Your task to perform on an android device: turn on location history Image 0: 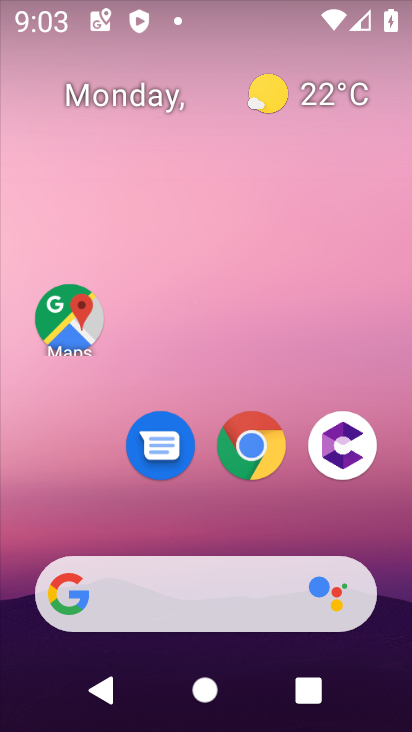
Step 0: drag from (197, 330) to (178, 6)
Your task to perform on an android device: turn on location history Image 1: 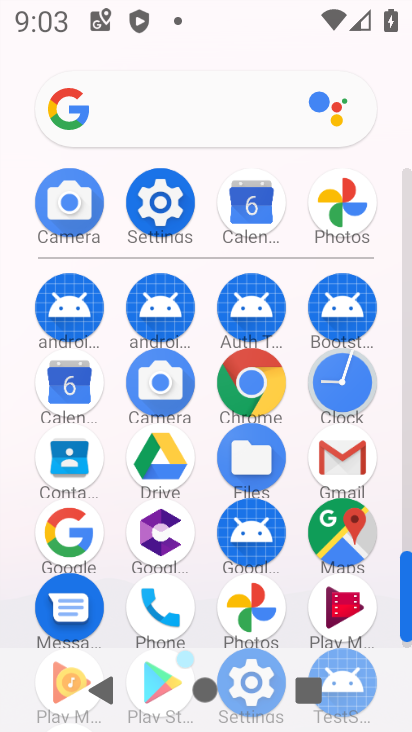
Step 1: click (148, 206)
Your task to perform on an android device: turn on location history Image 2: 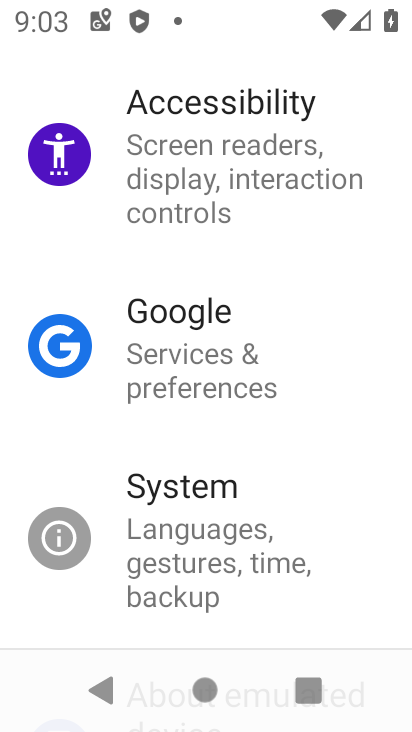
Step 2: drag from (71, 244) to (101, 262)
Your task to perform on an android device: turn on location history Image 3: 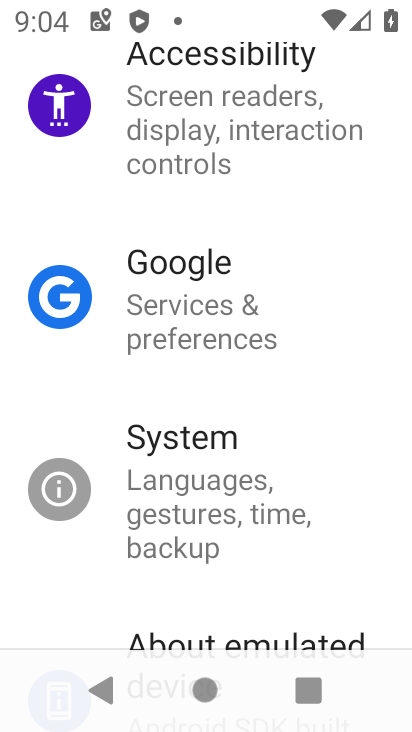
Step 3: drag from (55, 414) to (43, 706)
Your task to perform on an android device: turn on location history Image 4: 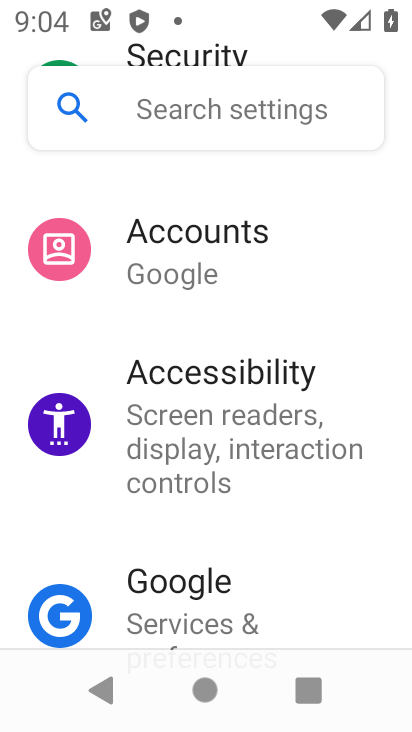
Step 4: drag from (42, 332) to (20, 692)
Your task to perform on an android device: turn on location history Image 5: 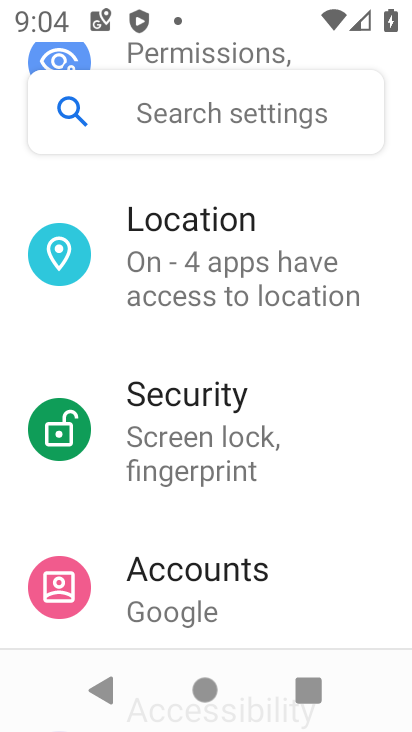
Step 5: click (145, 264)
Your task to perform on an android device: turn on location history Image 6: 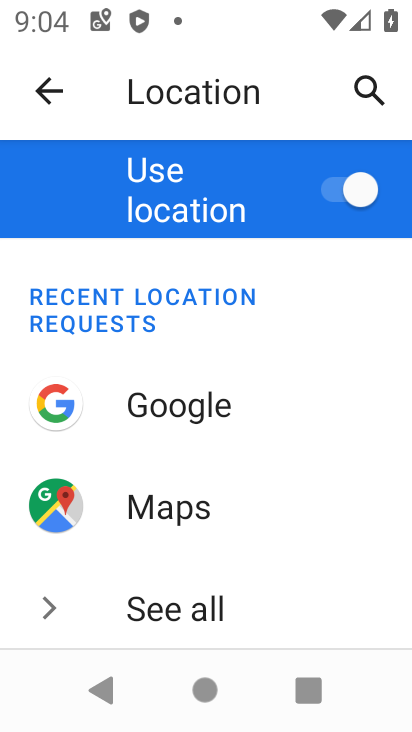
Step 6: drag from (305, 623) to (295, 235)
Your task to perform on an android device: turn on location history Image 7: 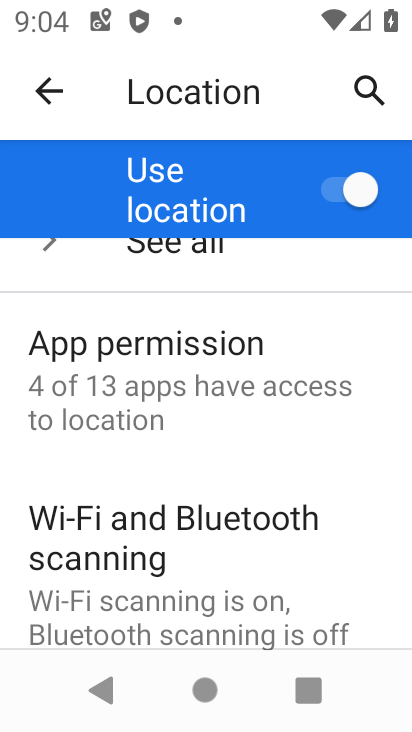
Step 7: drag from (281, 565) to (278, 212)
Your task to perform on an android device: turn on location history Image 8: 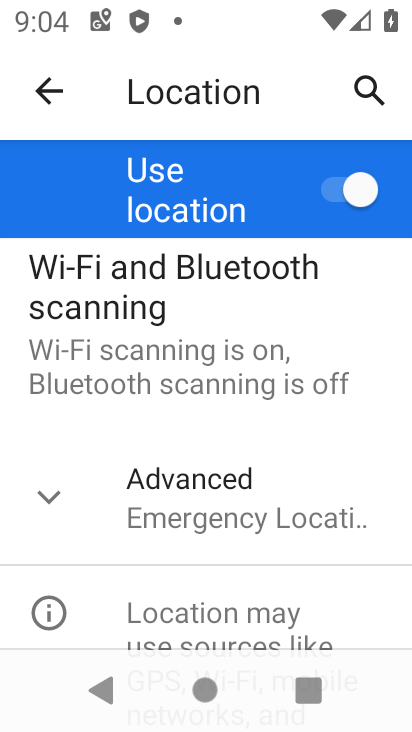
Step 8: click (83, 514)
Your task to perform on an android device: turn on location history Image 9: 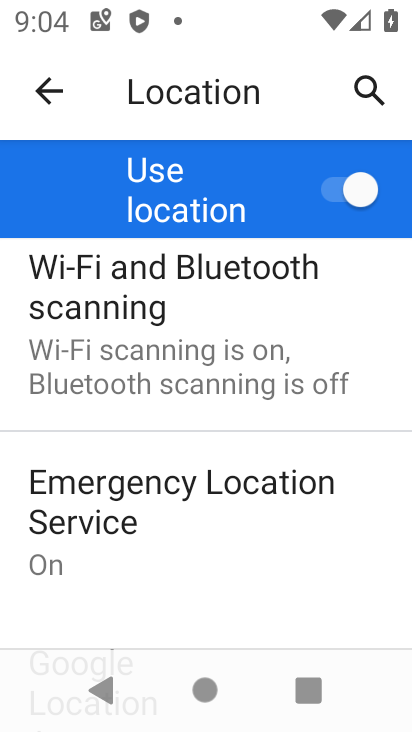
Step 9: drag from (296, 560) to (282, 213)
Your task to perform on an android device: turn on location history Image 10: 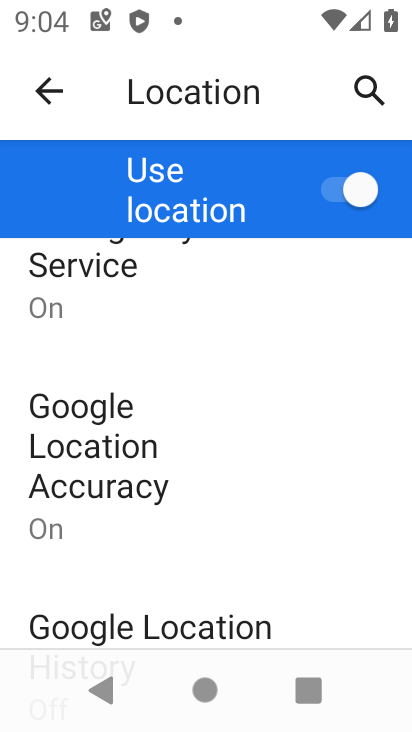
Step 10: drag from (282, 583) to (288, 336)
Your task to perform on an android device: turn on location history Image 11: 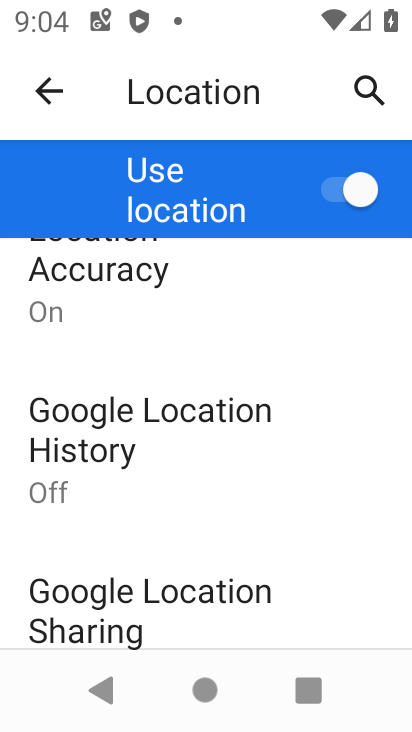
Step 11: click (257, 437)
Your task to perform on an android device: turn on location history Image 12: 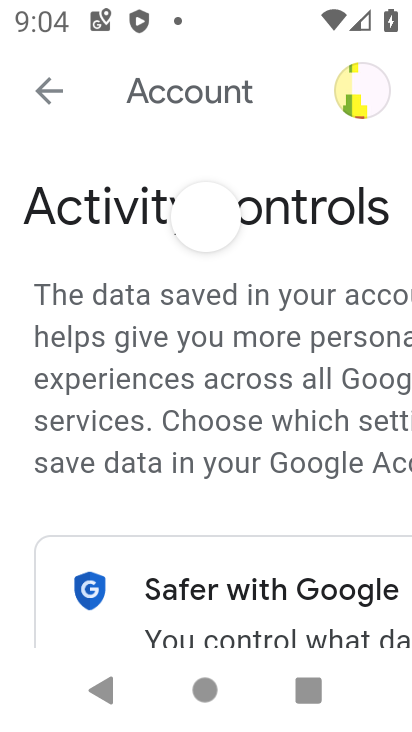
Step 12: drag from (237, 536) to (210, 69)
Your task to perform on an android device: turn on location history Image 13: 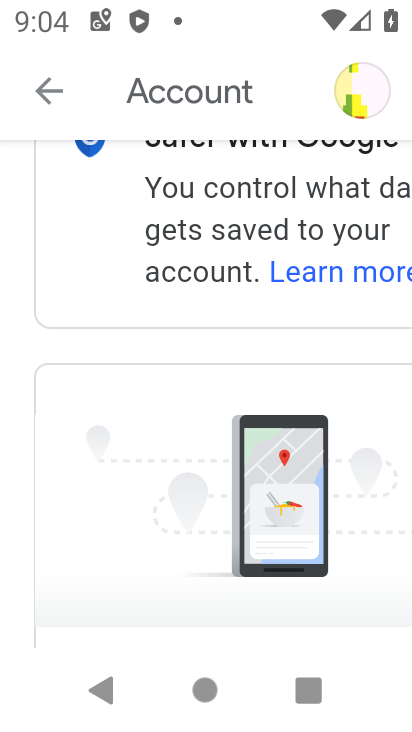
Step 13: drag from (34, 594) to (81, 38)
Your task to perform on an android device: turn on location history Image 14: 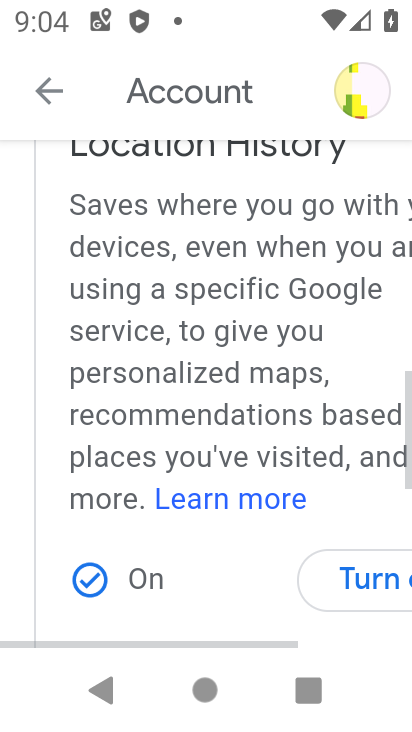
Step 14: drag from (198, 431) to (167, 104)
Your task to perform on an android device: turn on location history Image 15: 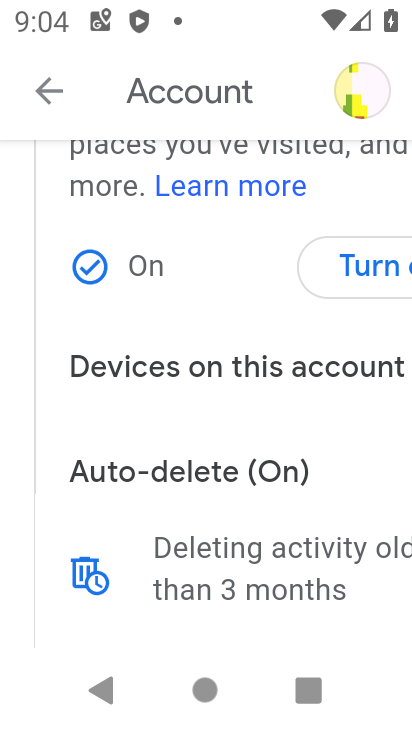
Step 15: click (352, 260)
Your task to perform on an android device: turn on location history Image 16: 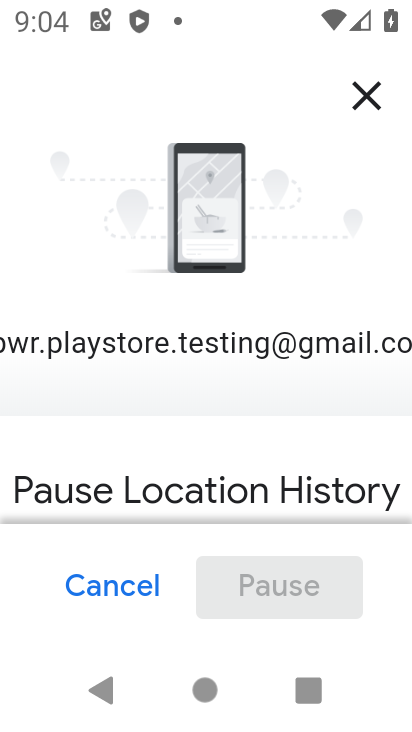
Step 16: drag from (368, 491) to (344, 47)
Your task to perform on an android device: turn on location history Image 17: 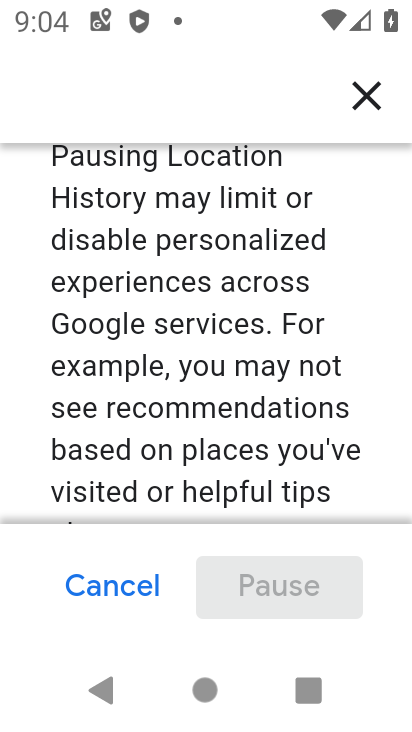
Step 17: drag from (303, 381) to (305, 24)
Your task to perform on an android device: turn on location history Image 18: 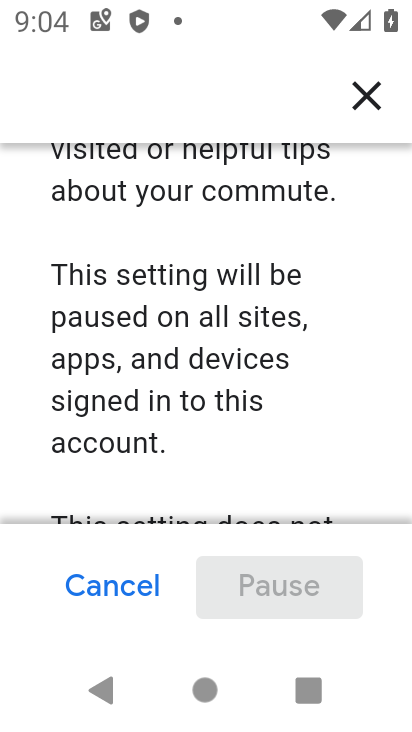
Step 18: drag from (292, 434) to (275, 37)
Your task to perform on an android device: turn on location history Image 19: 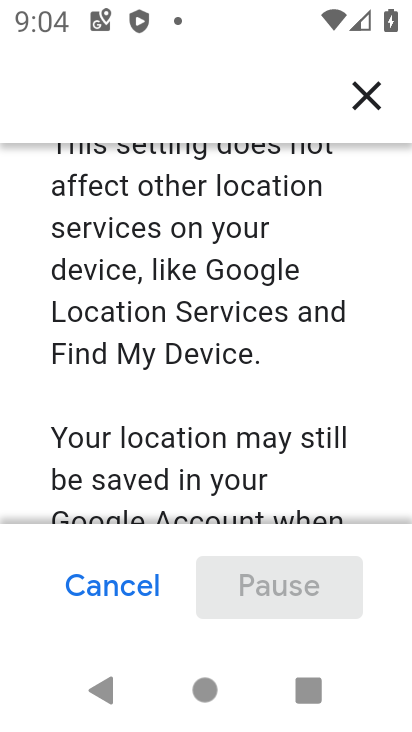
Step 19: drag from (285, 427) to (285, 5)
Your task to perform on an android device: turn on location history Image 20: 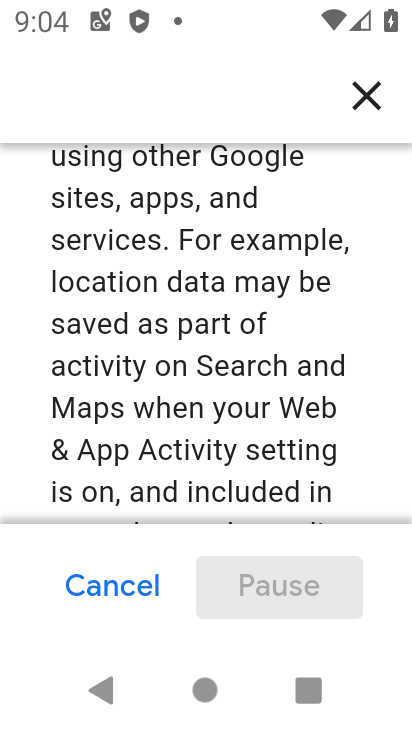
Step 20: drag from (314, 461) to (297, 90)
Your task to perform on an android device: turn on location history Image 21: 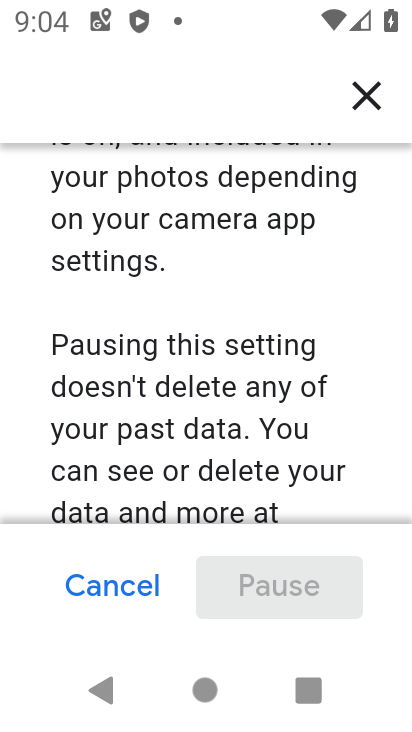
Step 21: drag from (297, 482) to (296, 148)
Your task to perform on an android device: turn on location history Image 22: 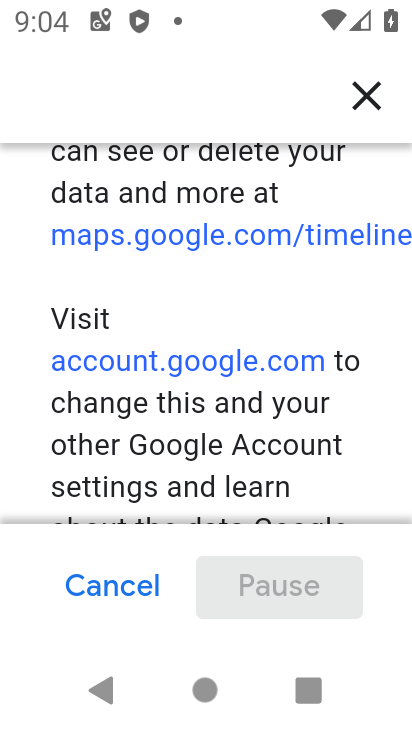
Step 22: drag from (327, 494) to (307, 167)
Your task to perform on an android device: turn on location history Image 23: 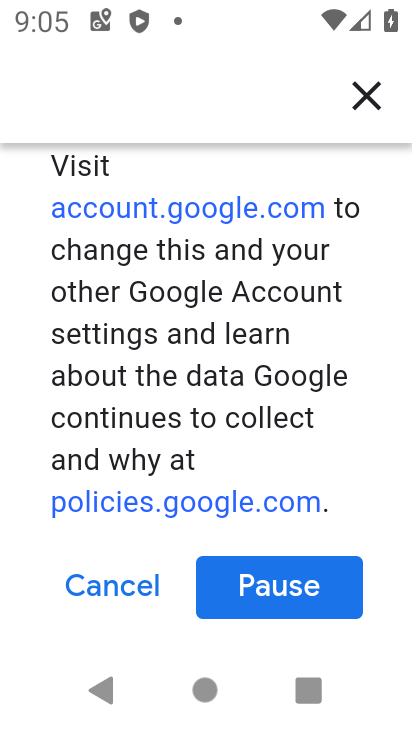
Step 23: click (272, 588)
Your task to perform on an android device: turn on location history Image 24: 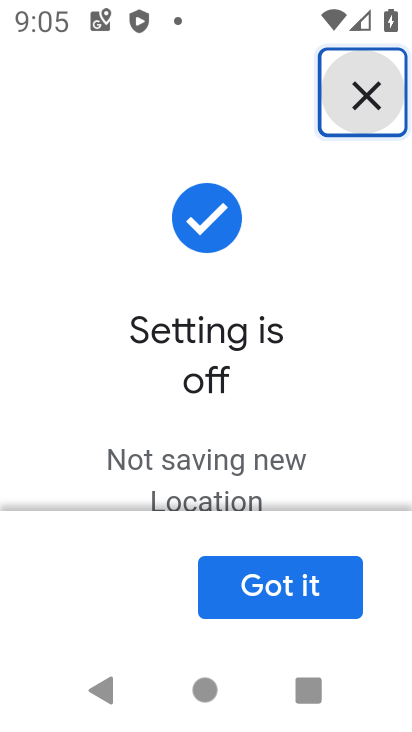
Step 24: click (300, 592)
Your task to perform on an android device: turn on location history Image 25: 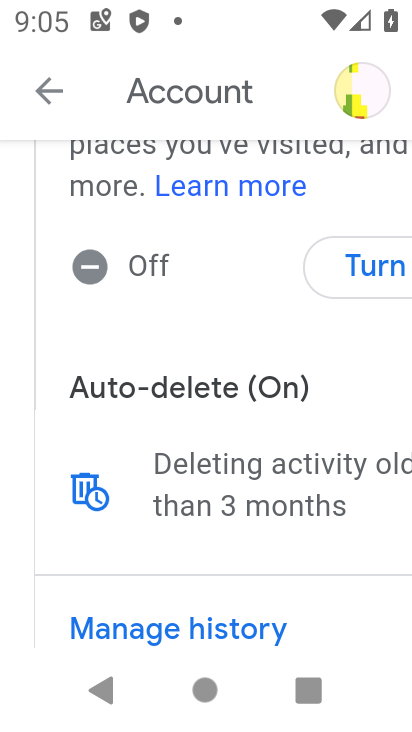
Step 25: task complete